Your task to perform on an android device: Search for flights from NYC to Mexico city Image 0: 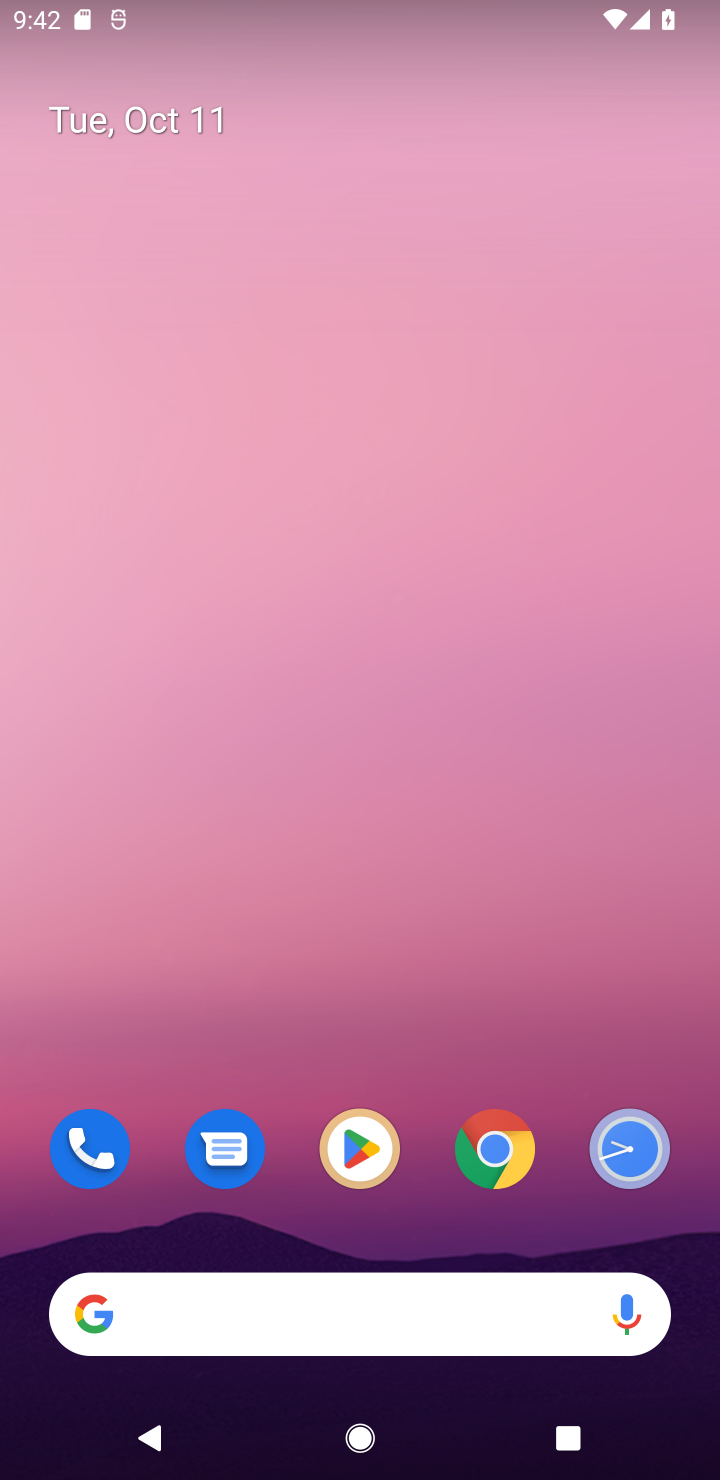
Step 0: drag from (338, 839) to (289, 239)
Your task to perform on an android device: Search for flights from NYC to Mexico city Image 1: 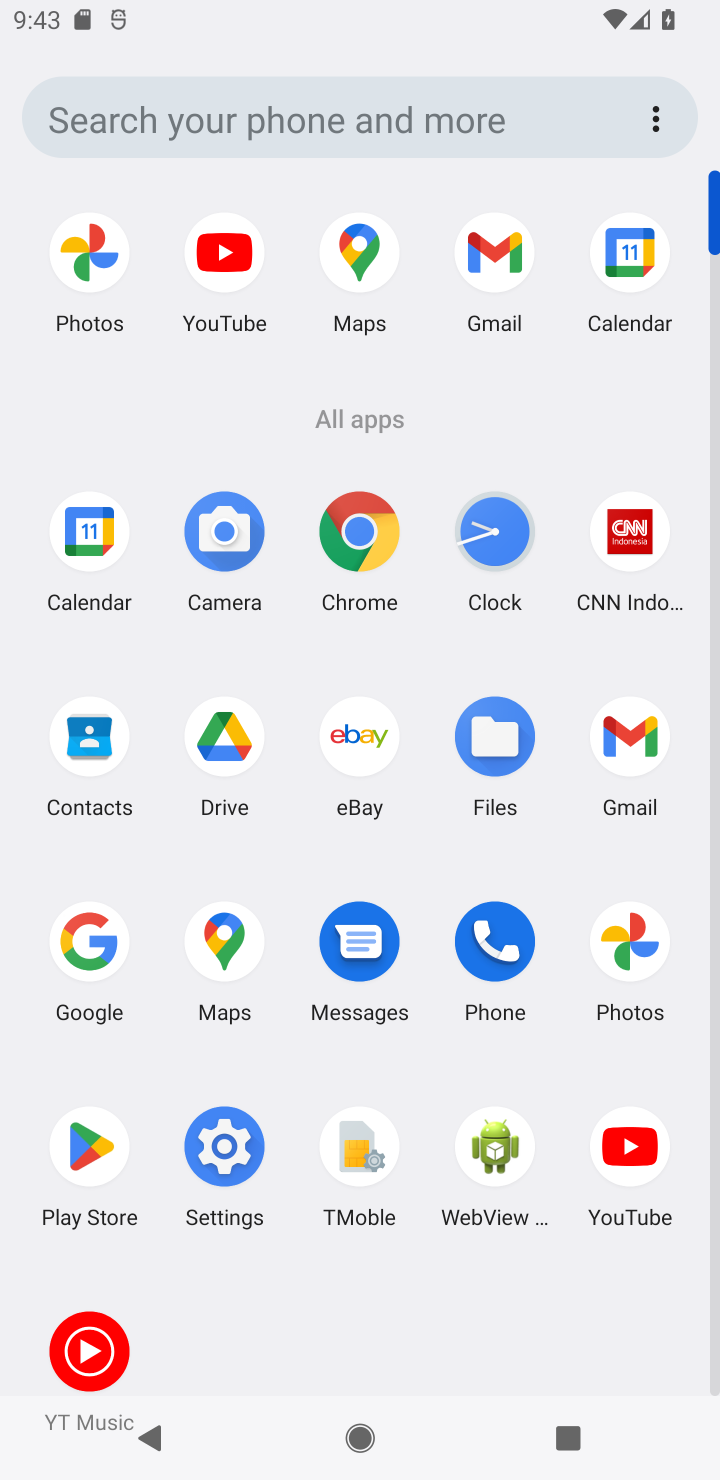
Step 1: click (310, 93)
Your task to perform on an android device: Search for flights from NYC to Mexico city Image 2: 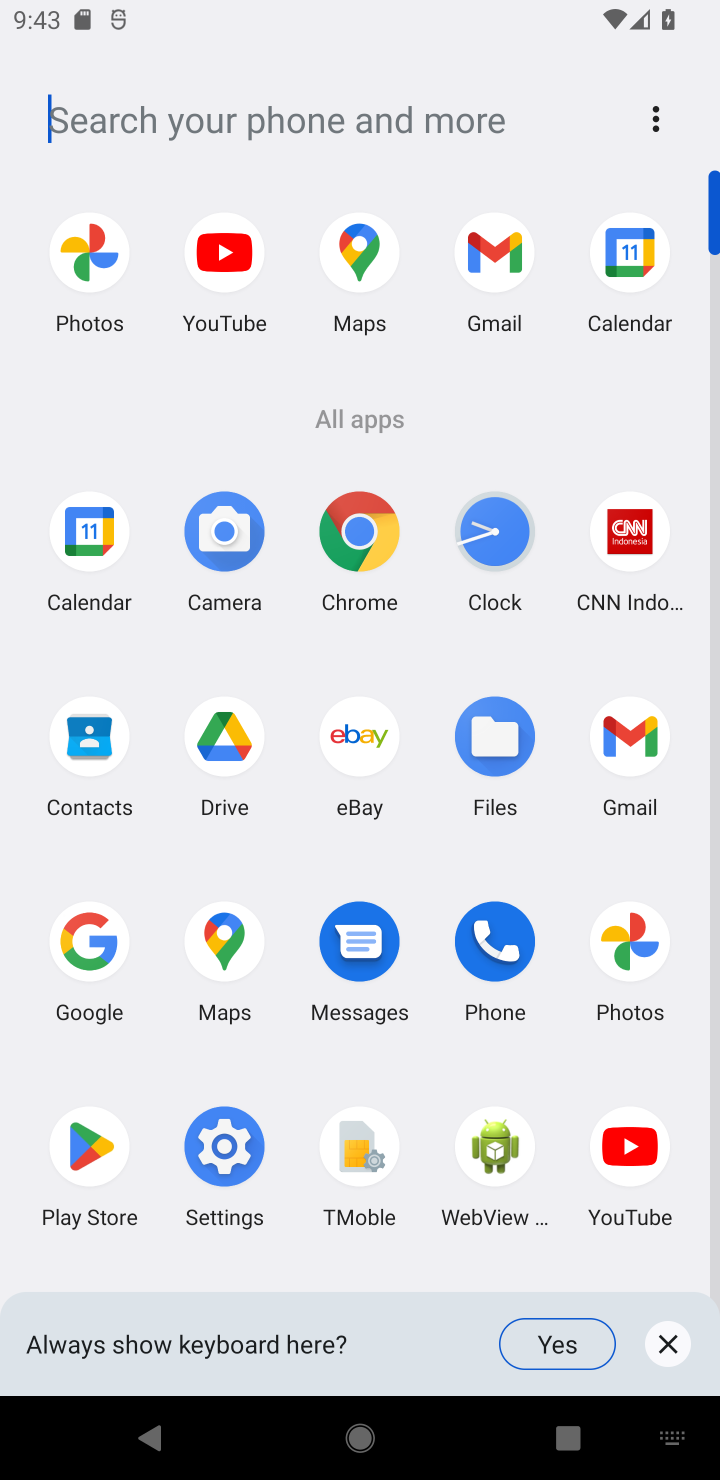
Step 2: click (89, 963)
Your task to perform on an android device: Search for flights from NYC to Mexico city Image 3: 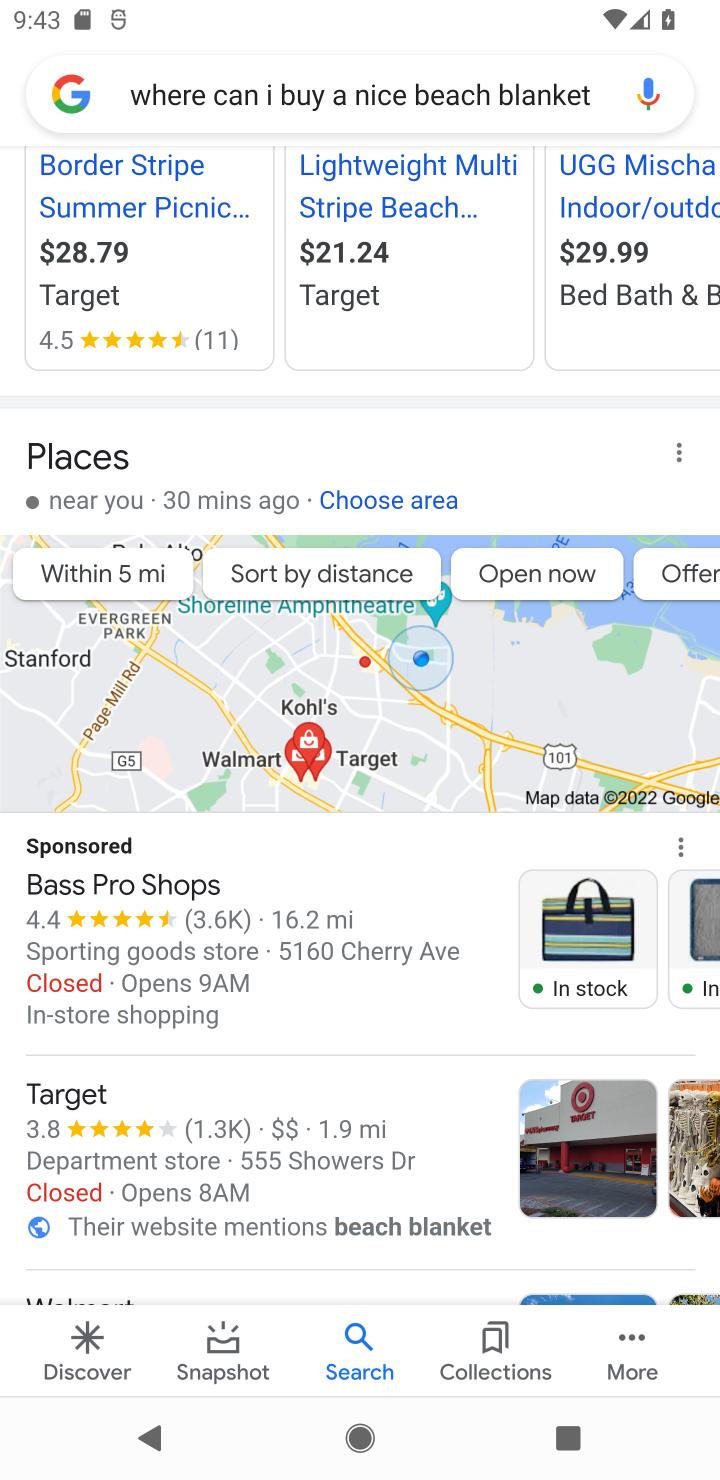
Step 3: click (574, 96)
Your task to perform on an android device: Search for flights from NYC to Mexico city Image 4: 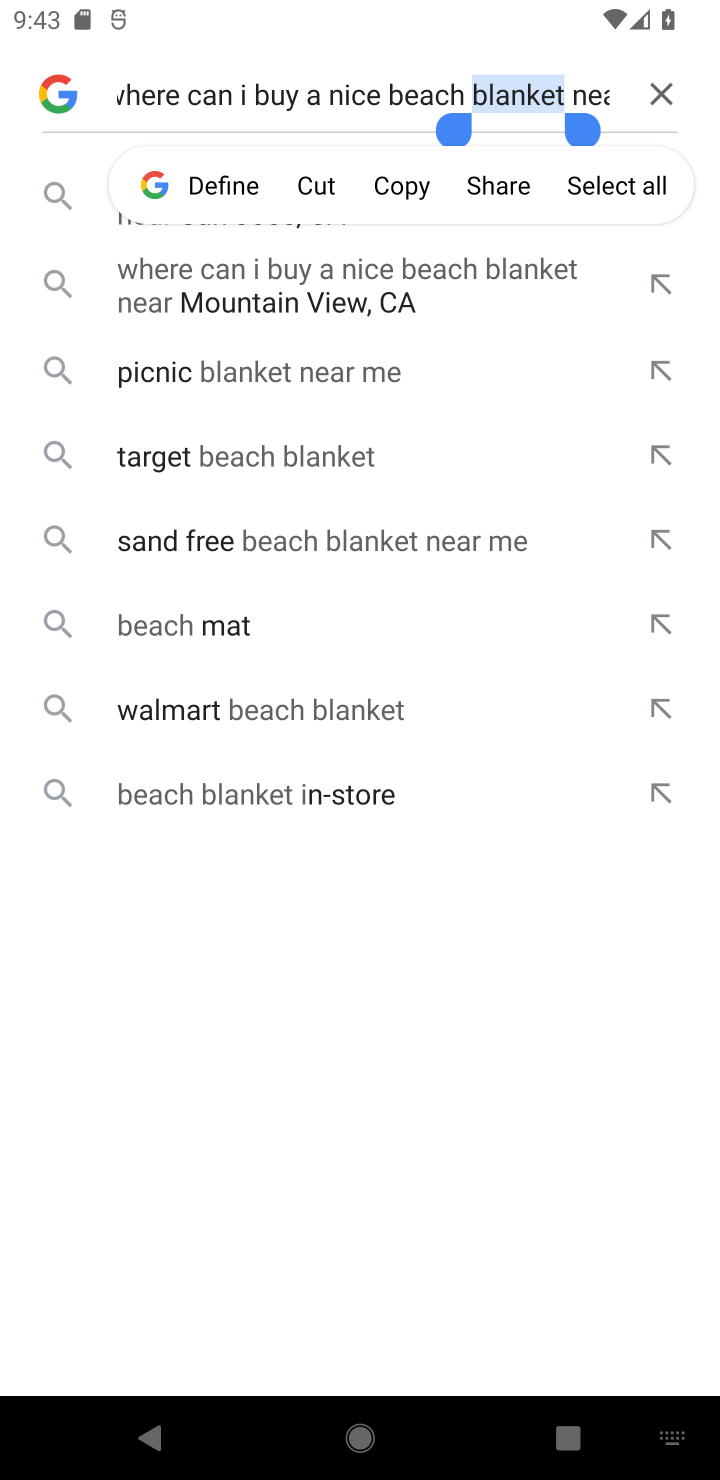
Step 4: click (653, 86)
Your task to perform on an android device: Search for flights from NYC to Mexico city Image 5: 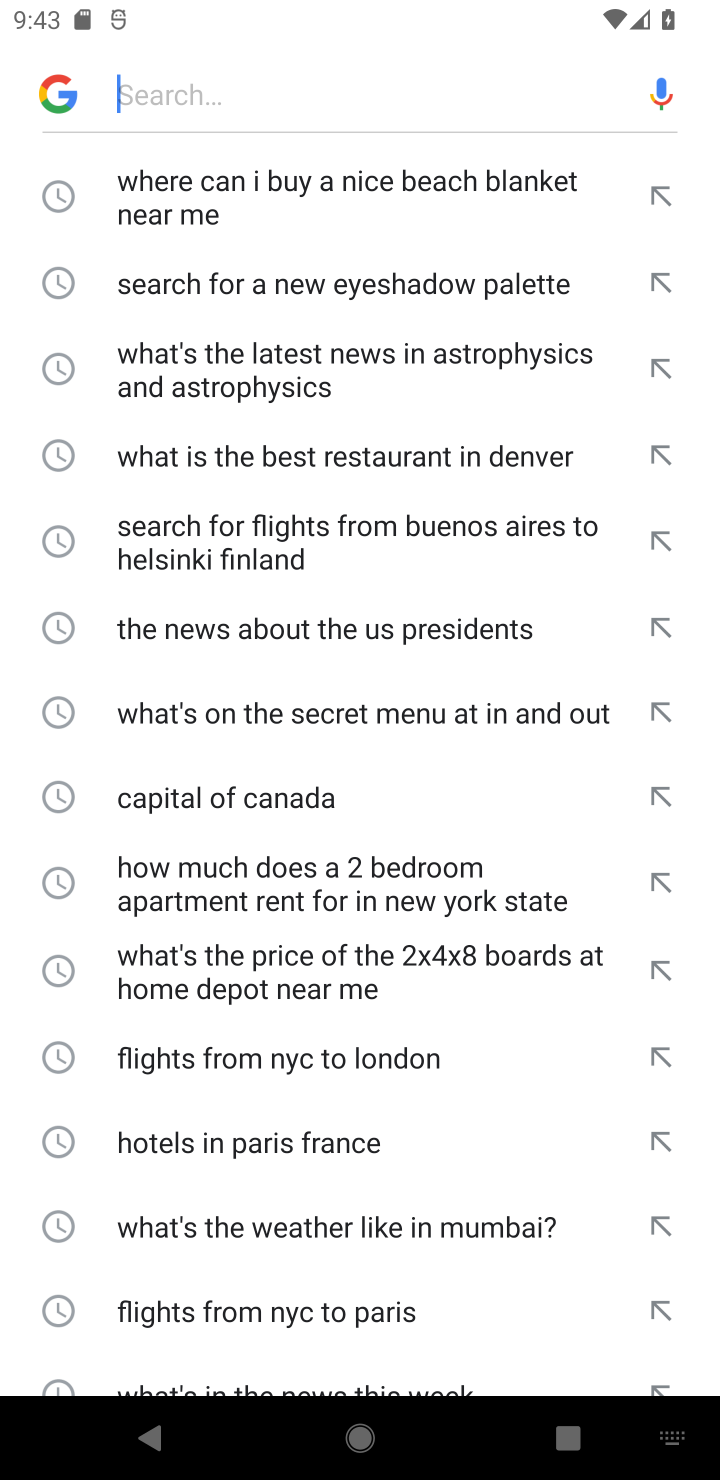
Step 5: type "flights from NYC to Mexico city"
Your task to perform on an android device: Search for flights from NYC to Mexico city Image 6: 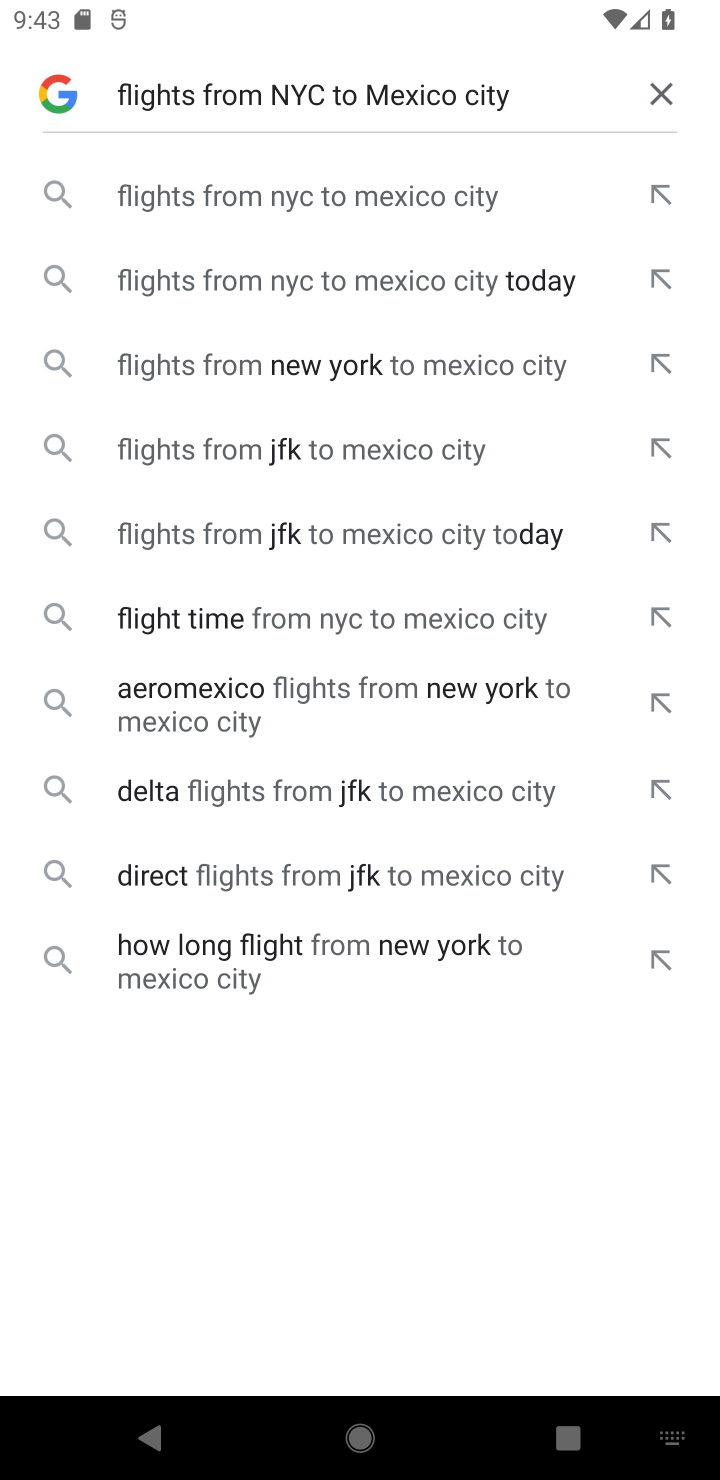
Step 6: click (431, 199)
Your task to perform on an android device: Search for flights from NYC to Mexico city Image 7: 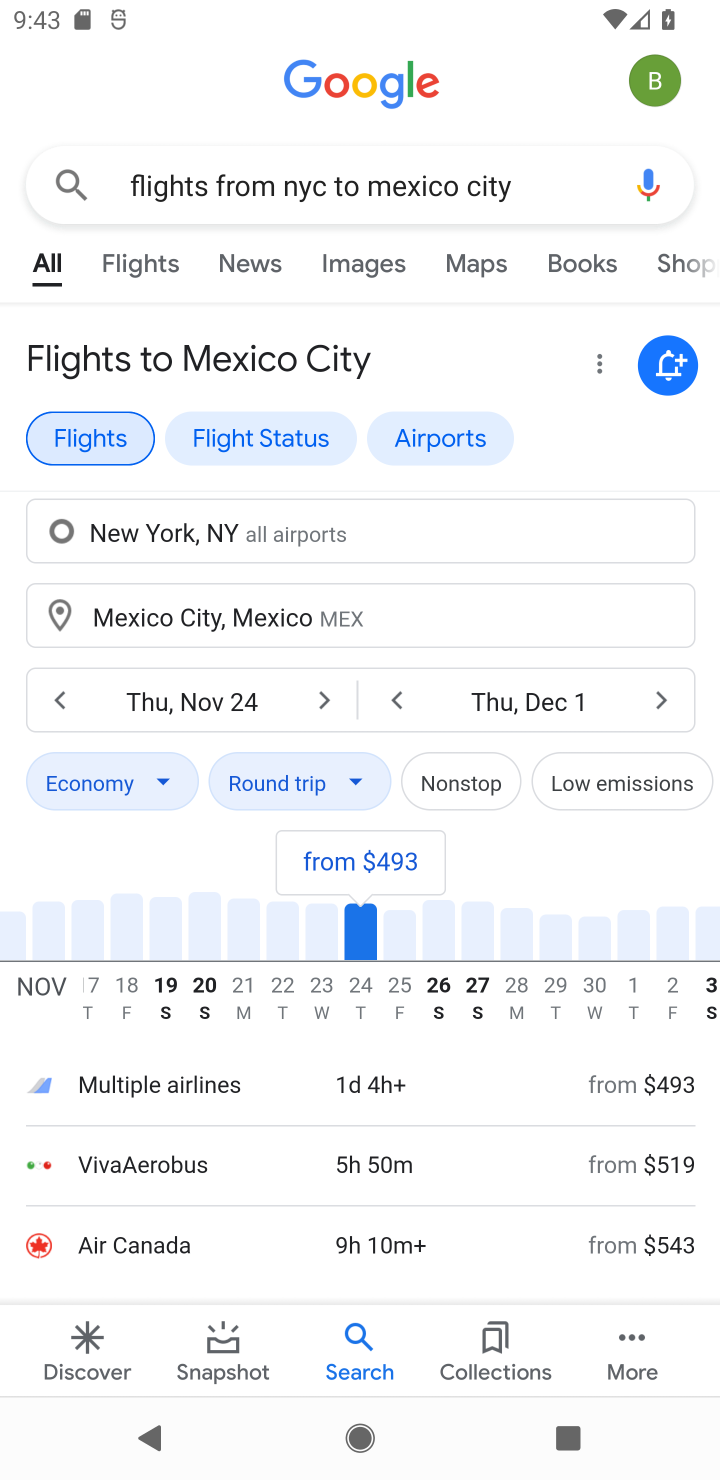
Step 7: task complete